Your task to perform on an android device: Open Chrome and go to the settings page Image 0: 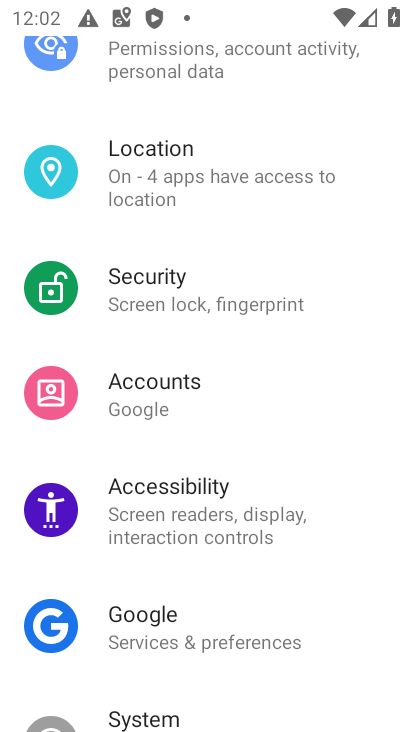
Step 0: press home button
Your task to perform on an android device: Open Chrome and go to the settings page Image 1: 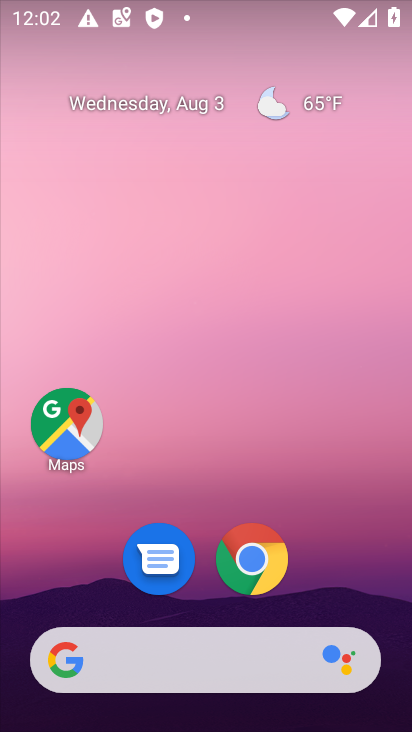
Step 1: click (250, 559)
Your task to perform on an android device: Open Chrome and go to the settings page Image 2: 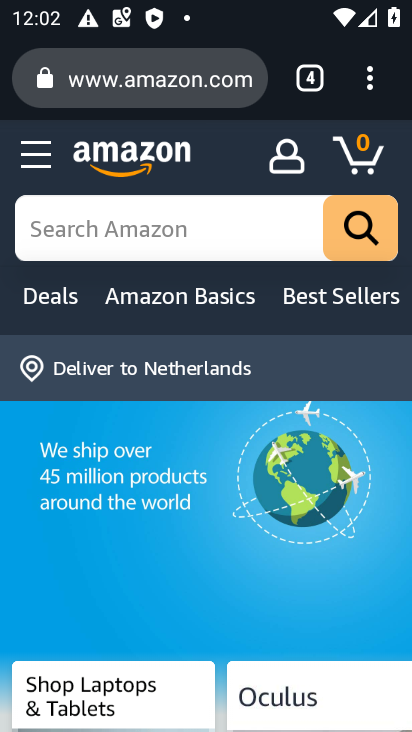
Step 2: click (371, 83)
Your task to perform on an android device: Open Chrome and go to the settings page Image 3: 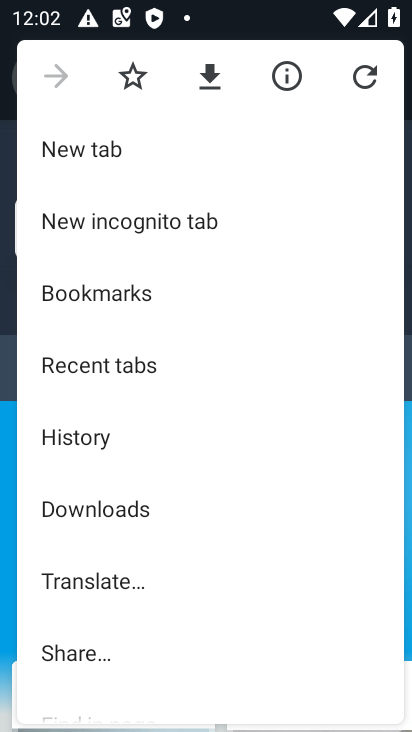
Step 3: drag from (115, 604) to (115, 343)
Your task to perform on an android device: Open Chrome and go to the settings page Image 4: 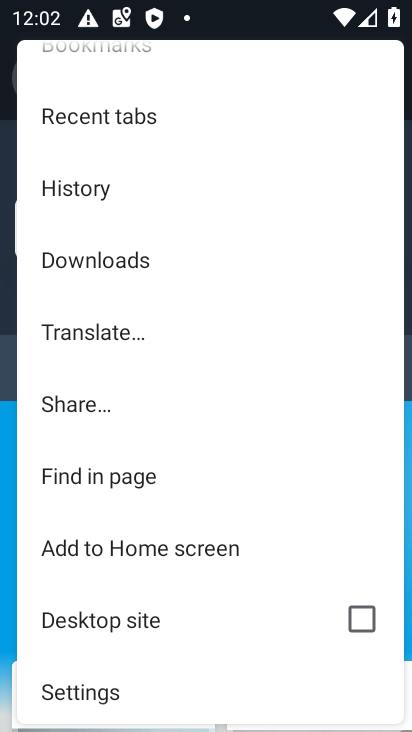
Step 4: click (82, 692)
Your task to perform on an android device: Open Chrome and go to the settings page Image 5: 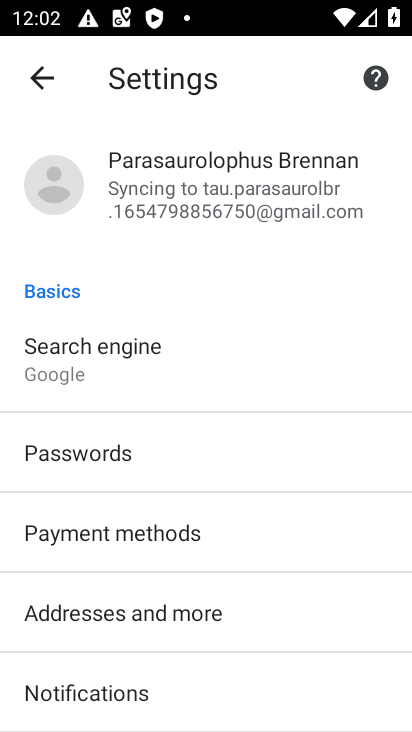
Step 5: task complete